Your task to perform on an android device: read, delete, or share a saved page in the chrome app Image 0: 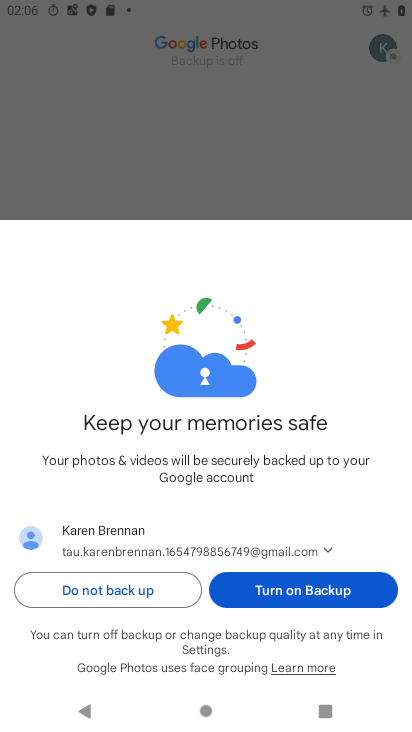
Step 0: click (308, 165)
Your task to perform on an android device: read, delete, or share a saved page in the chrome app Image 1: 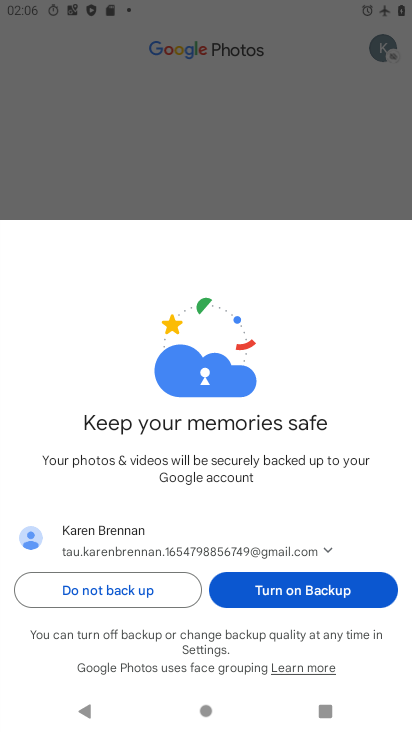
Step 1: press home button
Your task to perform on an android device: read, delete, or share a saved page in the chrome app Image 2: 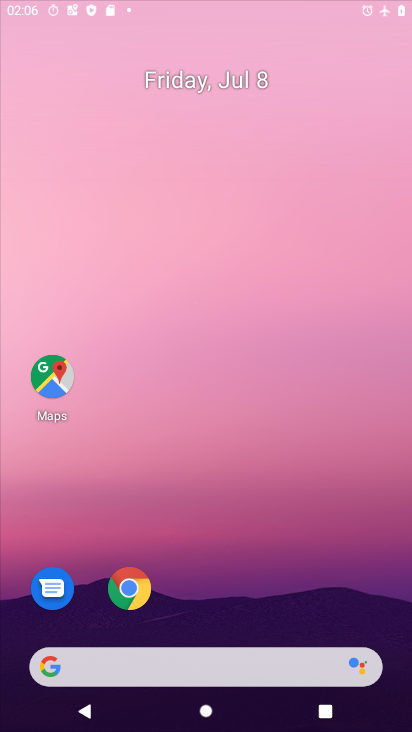
Step 2: drag from (216, 606) to (251, 179)
Your task to perform on an android device: read, delete, or share a saved page in the chrome app Image 3: 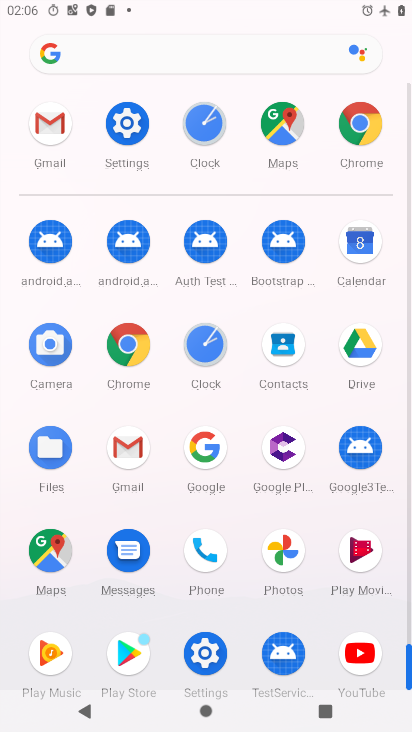
Step 3: click (128, 337)
Your task to perform on an android device: read, delete, or share a saved page in the chrome app Image 4: 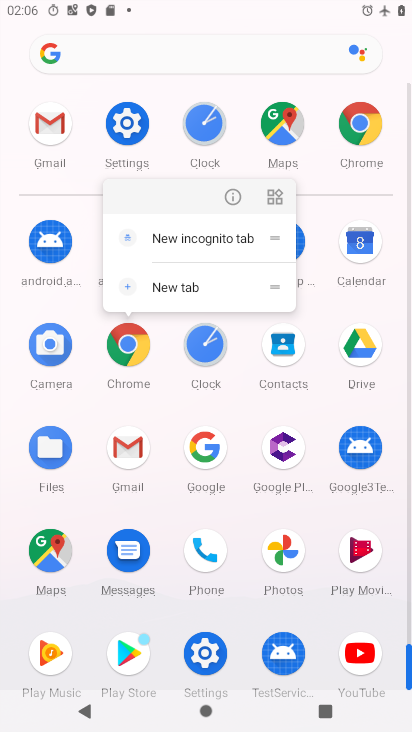
Step 4: click (224, 179)
Your task to perform on an android device: read, delete, or share a saved page in the chrome app Image 5: 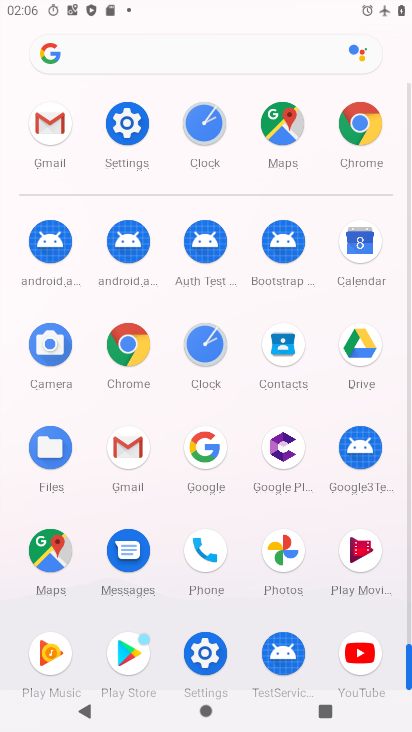
Step 5: click (112, 338)
Your task to perform on an android device: read, delete, or share a saved page in the chrome app Image 6: 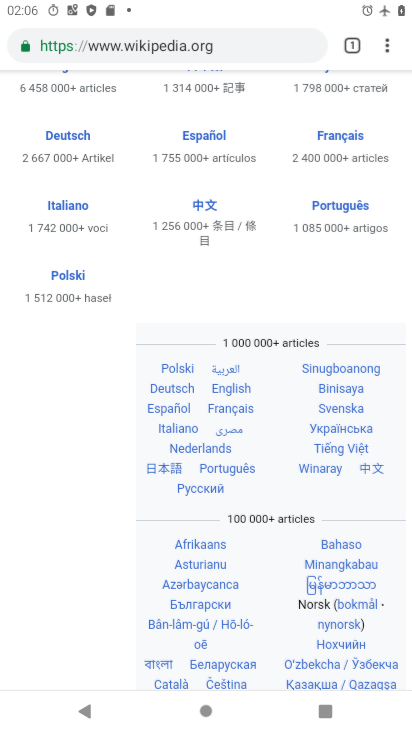
Step 6: drag from (132, 253) to (198, 728)
Your task to perform on an android device: read, delete, or share a saved page in the chrome app Image 7: 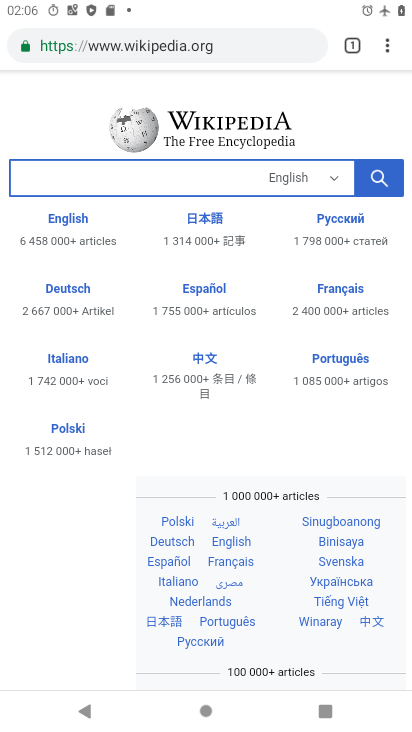
Step 7: click (375, 34)
Your task to perform on an android device: read, delete, or share a saved page in the chrome app Image 8: 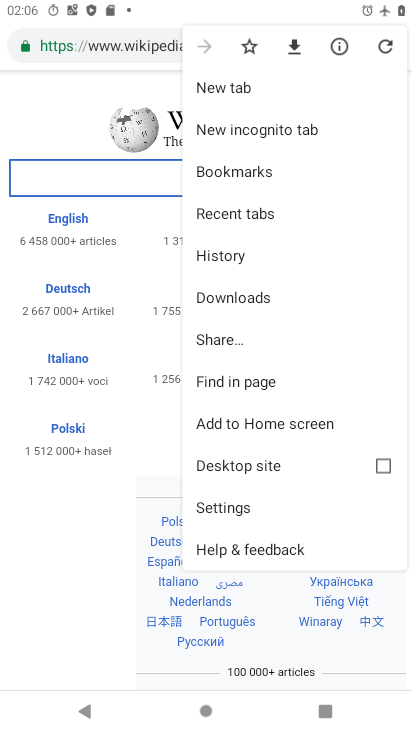
Step 8: click (267, 173)
Your task to perform on an android device: read, delete, or share a saved page in the chrome app Image 9: 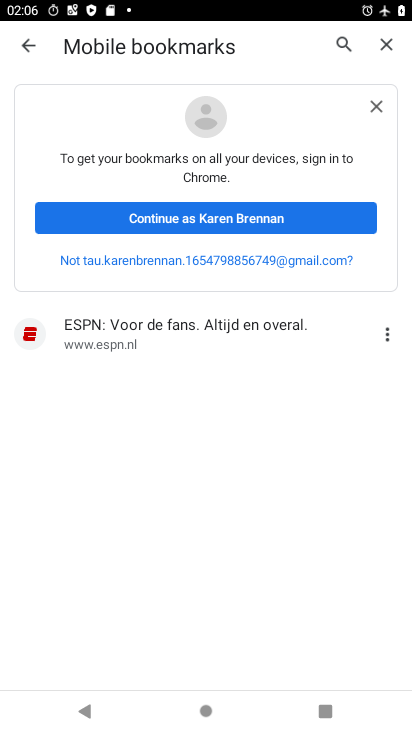
Step 9: task complete